Your task to perform on an android device: Search for Mexican restaurants on Maps Image 0: 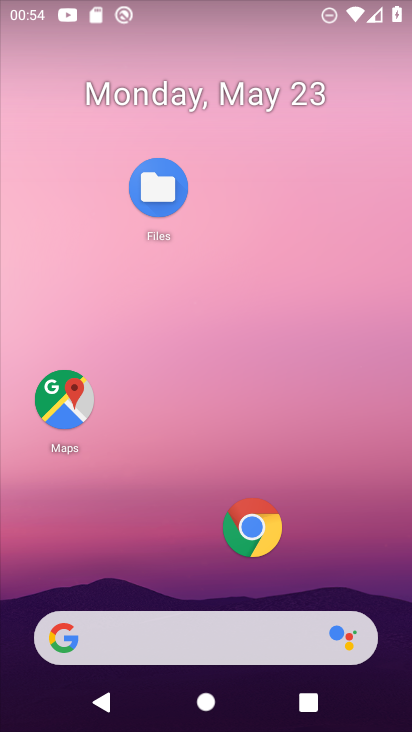
Step 0: click (80, 409)
Your task to perform on an android device: Search for Mexican restaurants on Maps Image 1: 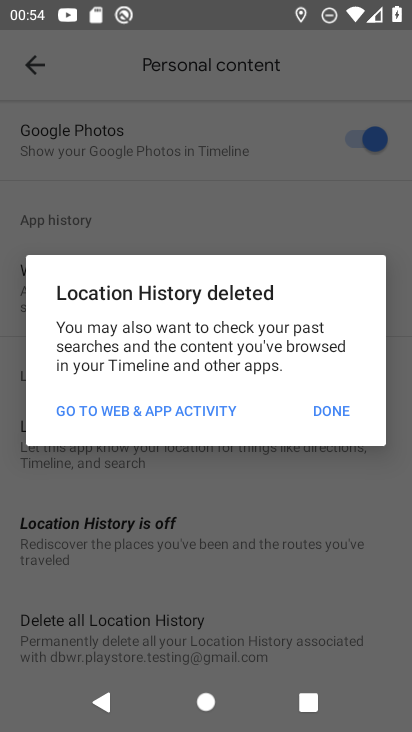
Step 1: click (316, 407)
Your task to perform on an android device: Search for Mexican restaurants on Maps Image 2: 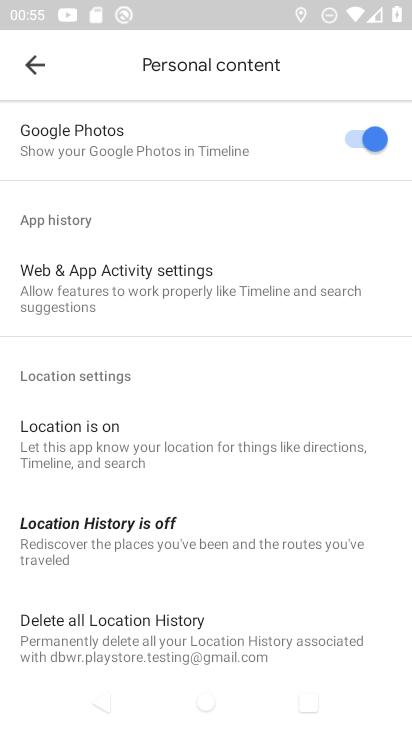
Step 2: click (36, 51)
Your task to perform on an android device: Search for Mexican restaurants on Maps Image 3: 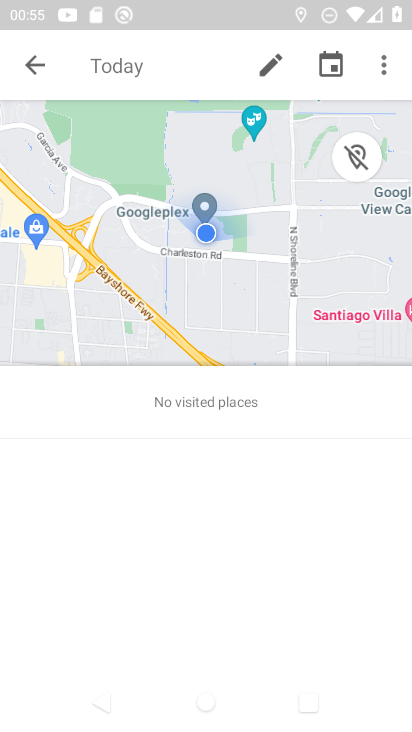
Step 3: click (104, 52)
Your task to perform on an android device: Search for Mexican restaurants on Maps Image 4: 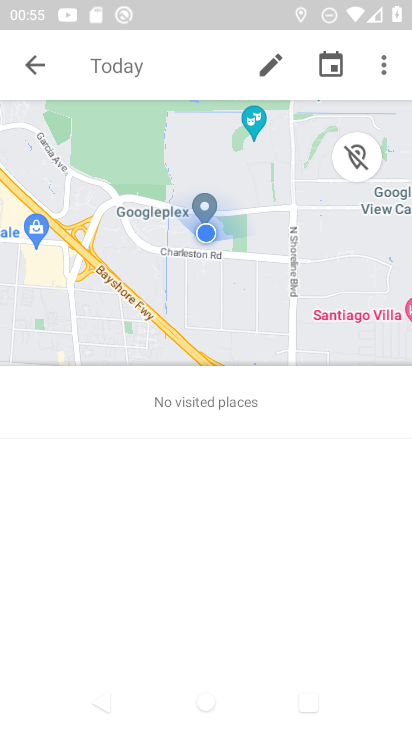
Step 4: click (35, 63)
Your task to perform on an android device: Search for Mexican restaurants on Maps Image 5: 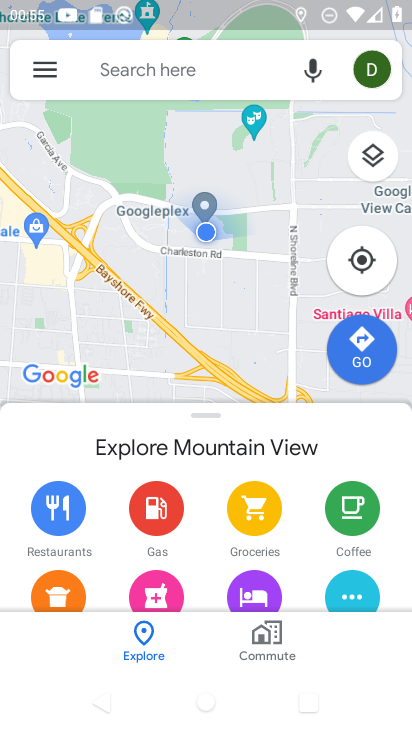
Step 5: click (130, 73)
Your task to perform on an android device: Search for Mexican restaurants on Maps Image 6: 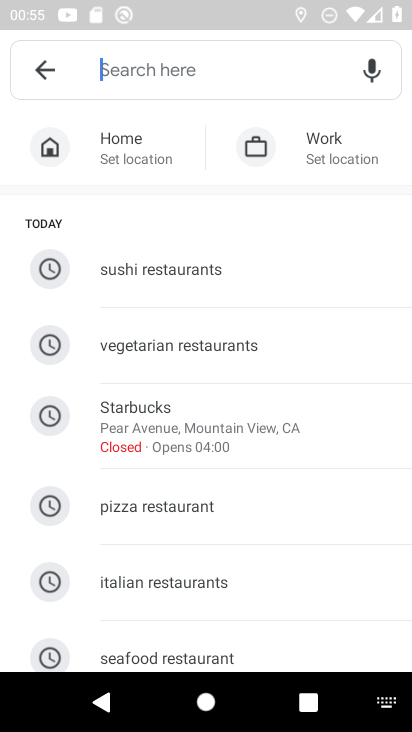
Step 6: type "mexican"
Your task to perform on an android device: Search for Mexican restaurants on Maps Image 7: 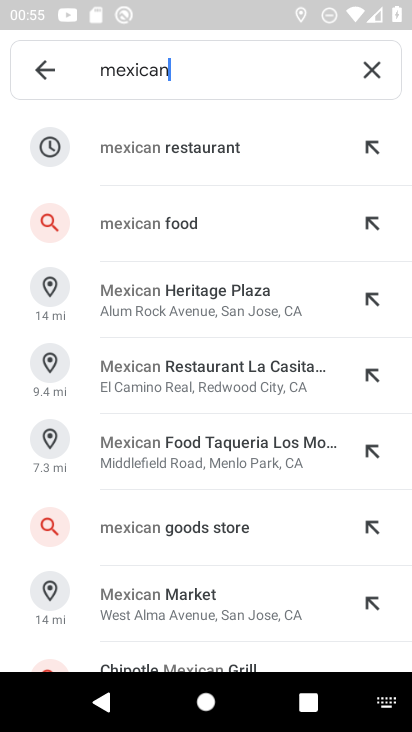
Step 7: click (179, 141)
Your task to perform on an android device: Search for Mexican restaurants on Maps Image 8: 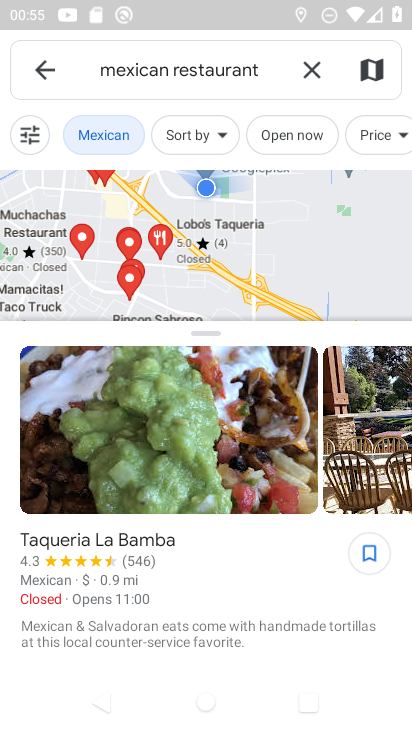
Step 8: task complete